Your task to perform on an android device: open a bookmark in the chrome app Image 0: 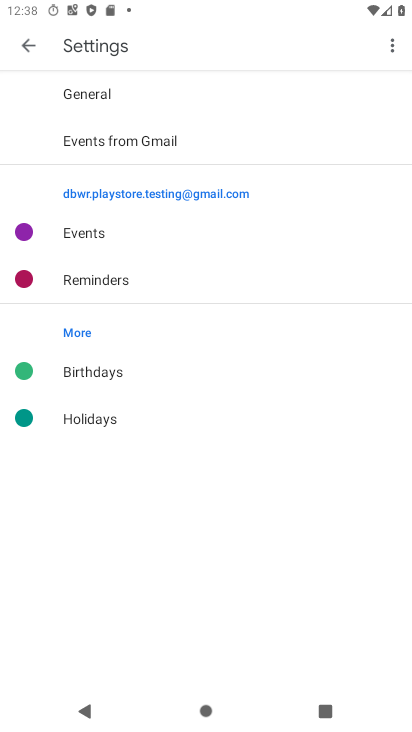
Step 0: press home button
Your task to perform on an android device: open a bookmark in the chrome app Image 1: 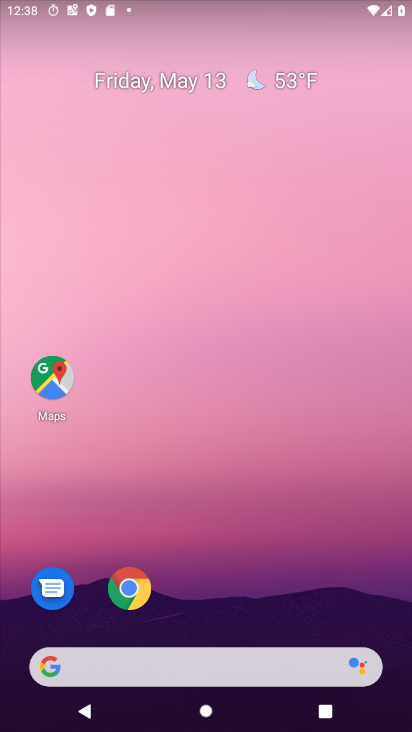
Step 1: click (126, 588)
Your task to perform on an android device: open a bookmark in the chrome app Image 2: 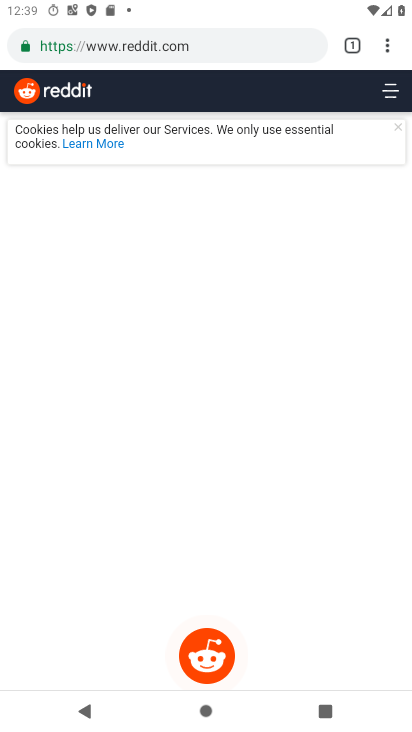
Step 2: click (388, 41)
Your task to perform on an android device: open a bookmark in the chrome app Image 3: 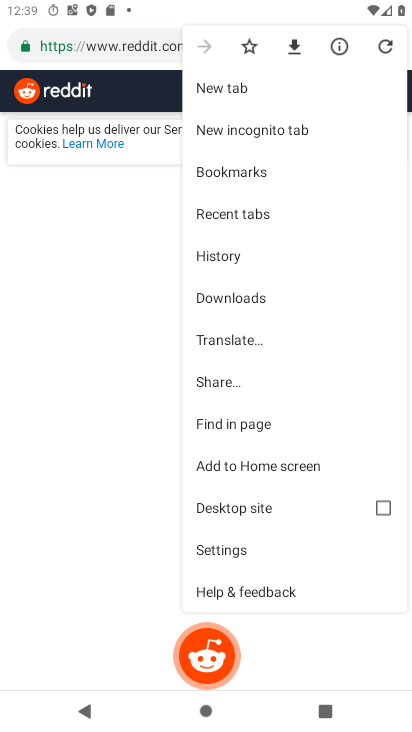
Step 3: click (250, 181)
Your task to perform on an android device: open a bookmark in the chrome app Image 4: 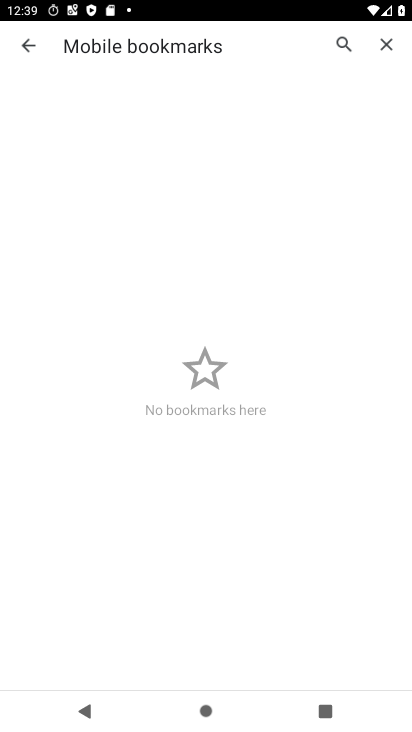
Step 4: task complete